Your task to perform on an android device: open a new tab in the chrome app Image 0: 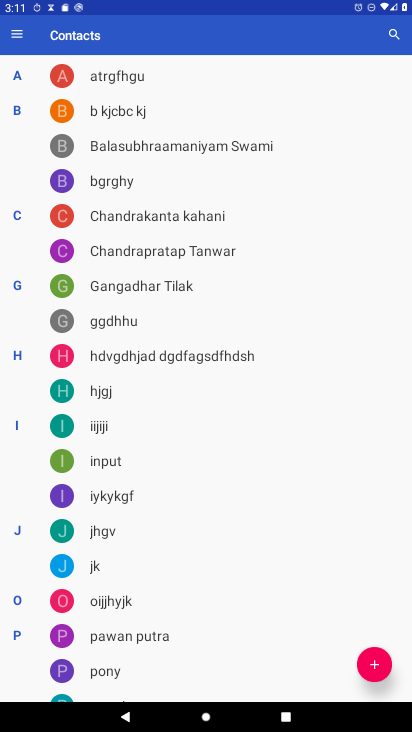
Step 0: press home button
Your task to perform on an android device: open a new tab in the chrome app Image 1: 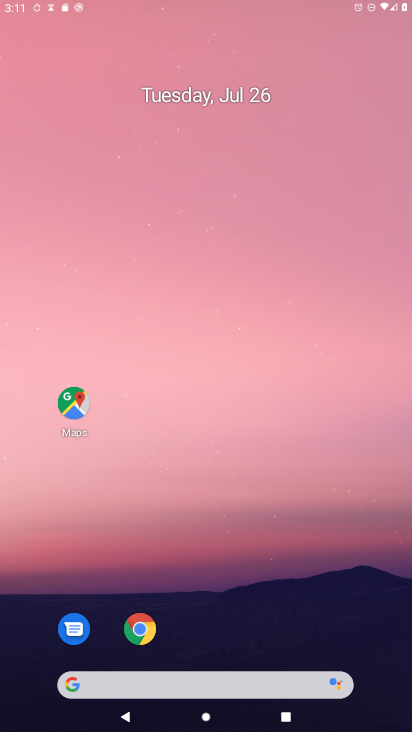
Step 1: drag from (232, 632) to (256, 13)
Your task to perform on an android device: open a new tab in the chrome app Image 2: 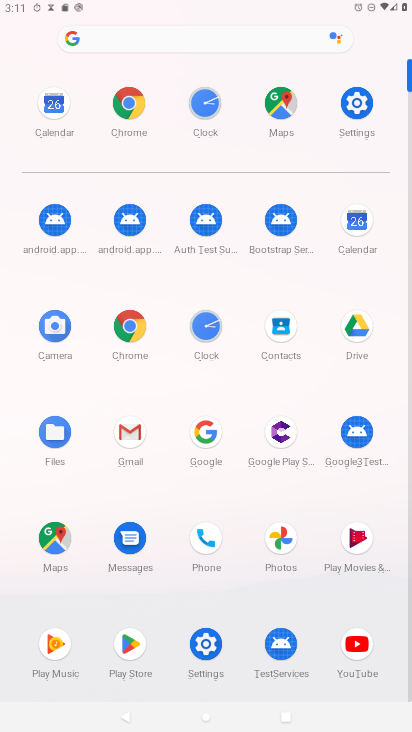
Step 2: click (135, 331)
Your task to perform on an android device: open a new tab in the chrome app Image 3: 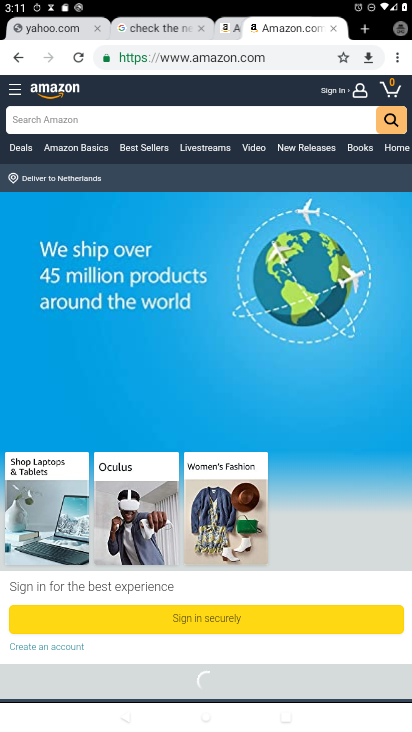
Step 3: task complete